Your task to perform on an android device: see creations saved in the google photos Image 0: 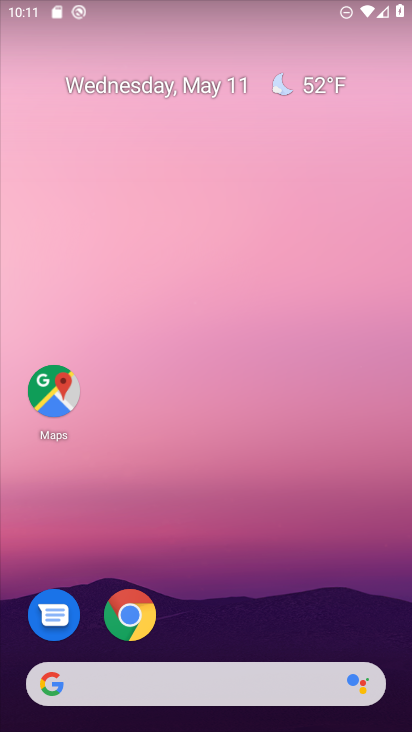
Step 0: drag from (299, 620) to (184, 123)
Your task to perform on an android device: see creations saved in the google photos Image 1: 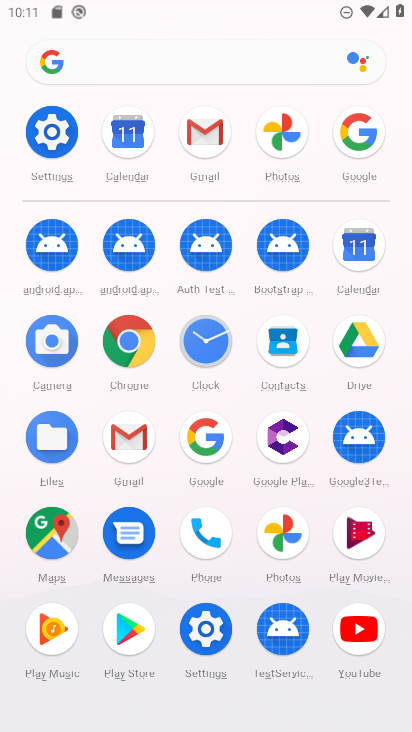
Step 1: click (281, 134)
Your task to perform on an android device: see creations saved in the google photos Image 2: 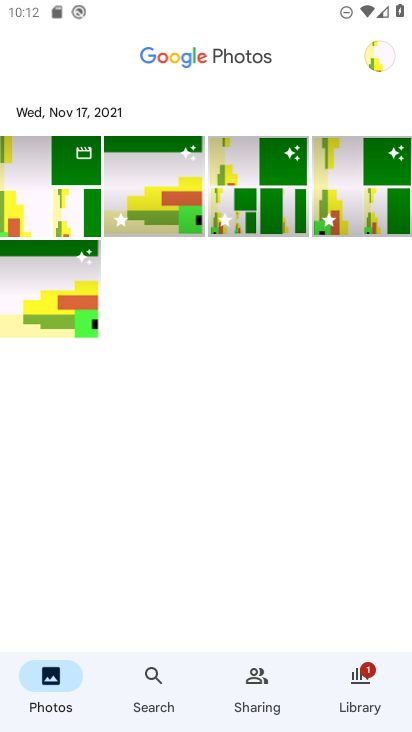
Step 2: click (253, 685)
Your task to perform on an android device: see creations saved in the google photos Image 3: 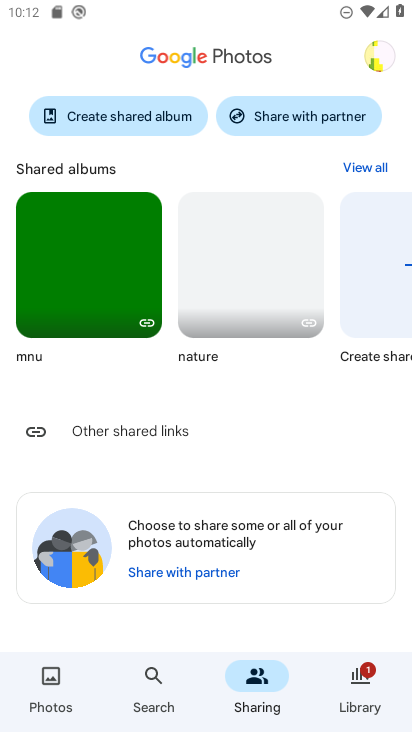
Step 3: drag from (192, 431) to (242, 260)
Your task to perform on an android device: see creations saved in the google photos Image 4: 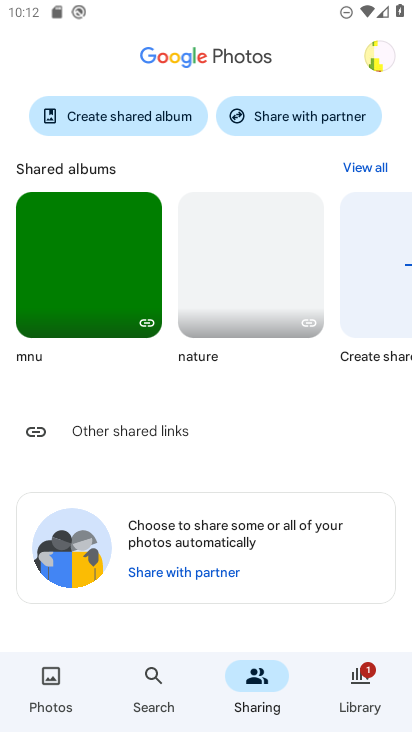
Step 4: click (155, 697)
Your task to perform on an android device: see creations saved in the google photos Image 5: 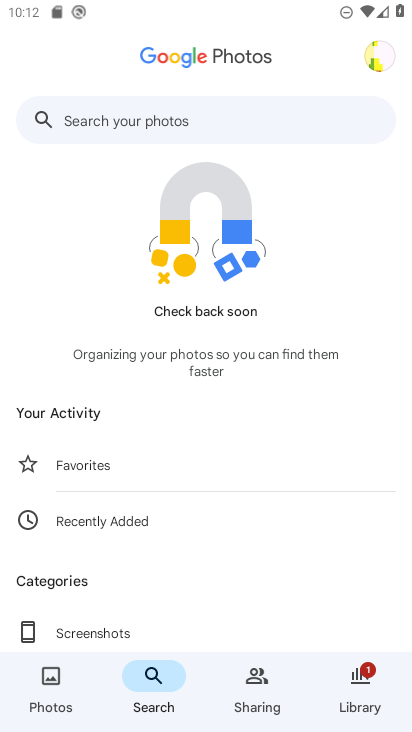
Step 5: drag from (152, 523) to (220, 378)
Your task to perform on an android device: see creations saved in the google photos Image 6: 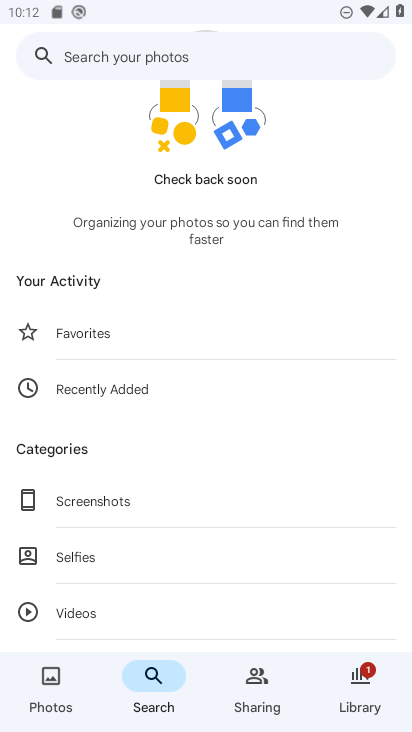
Step 6: drag from (168, 568) to (258, 294)
Your task to perform on an android device: see creations saved in the google photos Image 7: 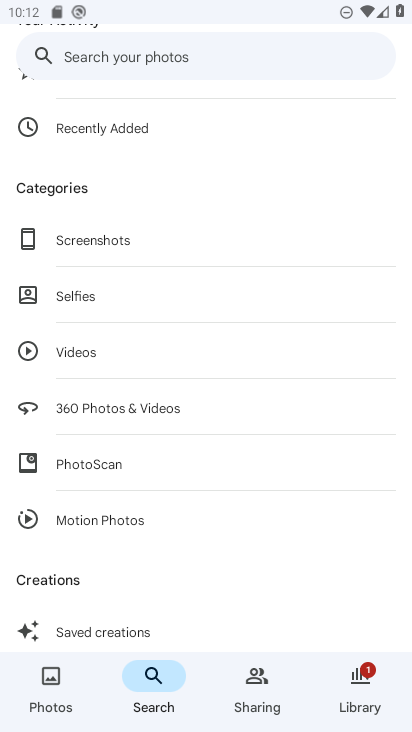
Step 7: drag from (175, 525) to (235, 385)
Your task to perform on an android device: see creations saved in the google photos Image 8: 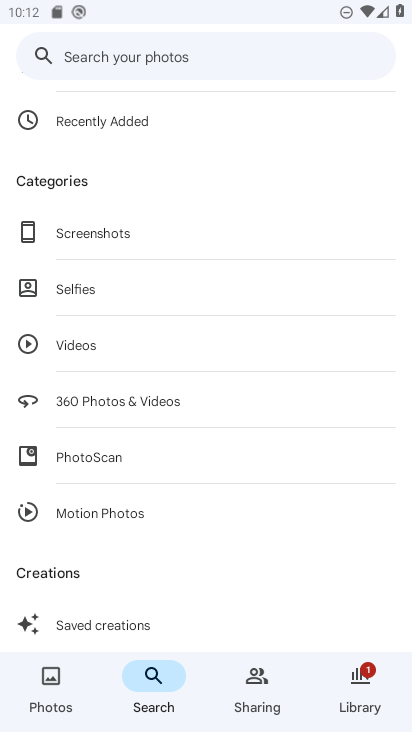
Step 8: click (130, 623)
Your task to perform on an android device: see creations saved in the google photos Image 9: 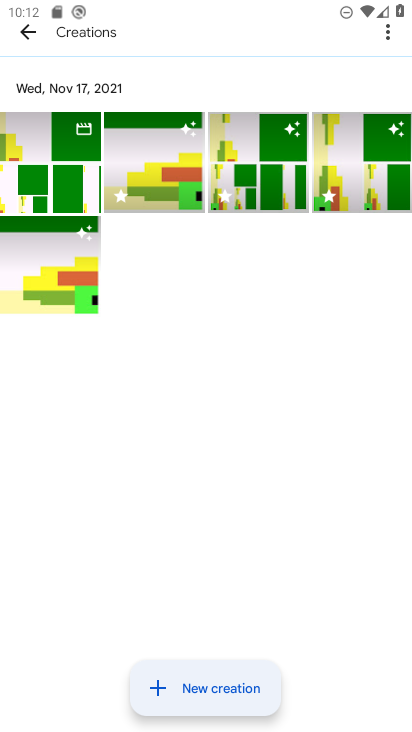
Step 9: click (188, 696)
Your task to perform on an android device: see creations saved in the google photos Image 10: 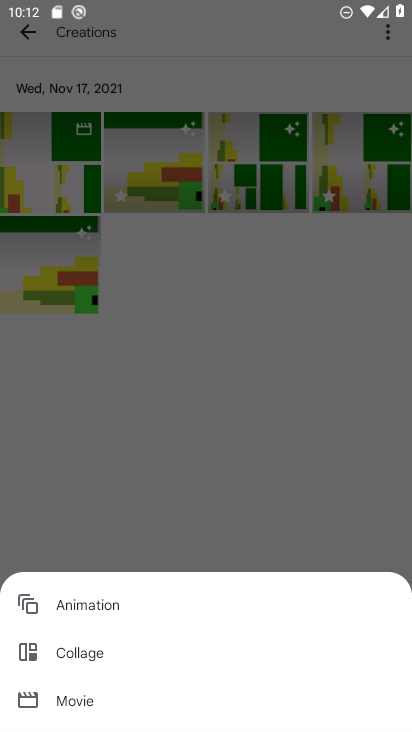
Step 10: drag from (86, 705) to (123, 559)
Your task to perform on an android device: see creations saved in the google photos Image 11: 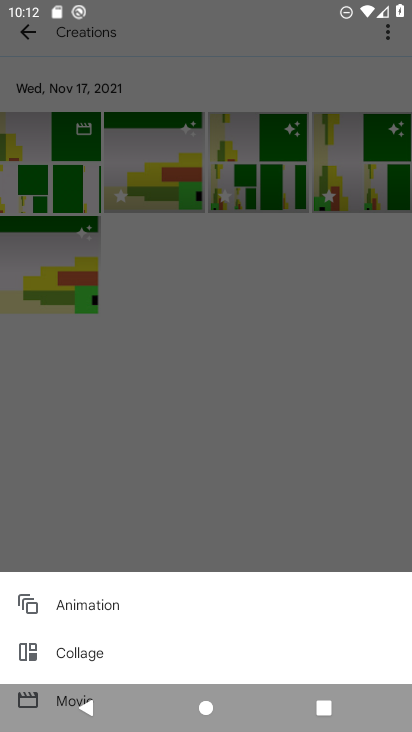
Step 11: click (78, 610)
Your task to perform on an android device: see creations saved in the google photos Image 12: 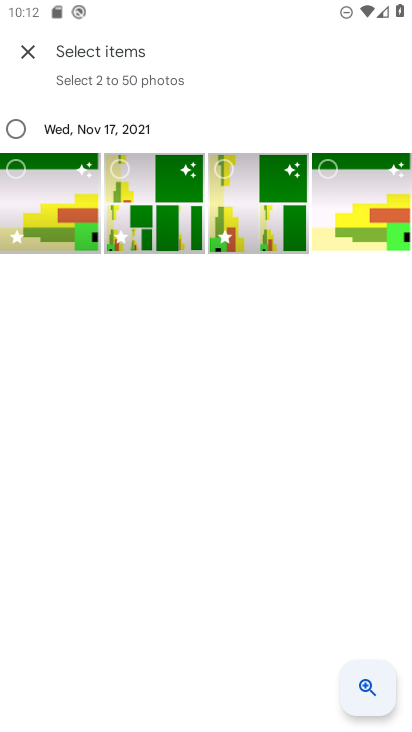
Step 12: click (9, 135)
Your task to perform on an android device: see creations saved in the google photos Image 13: 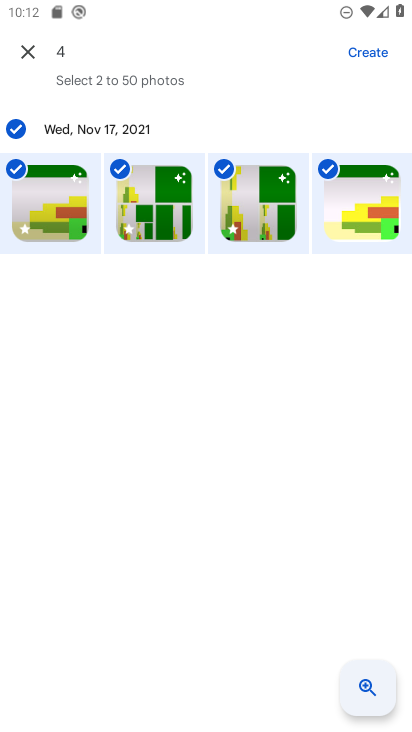
Step 13: click (367, 53)
Your task to perform on an android device: see creations saved in the google photos Image 14: 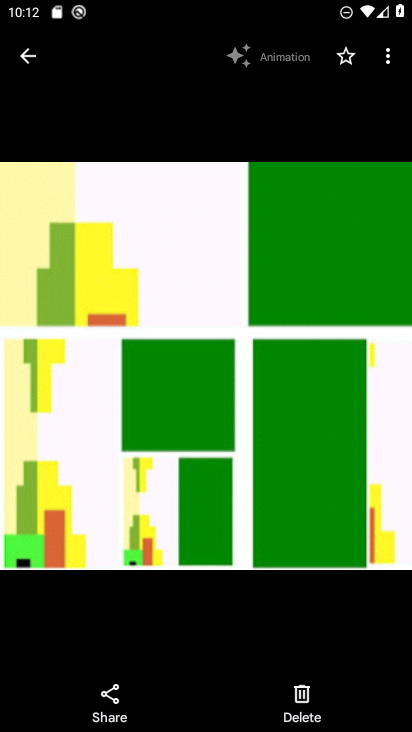
Step 14: click (26, 66)
Your task to perform on an android device: see creations saved in the google photos Image 15: 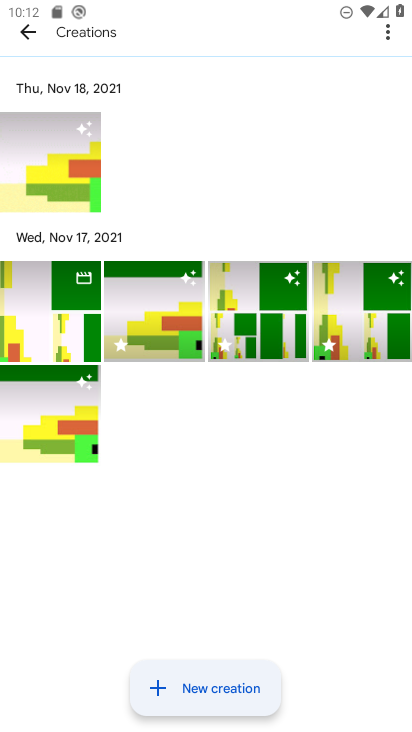
Step 15: click (34, 39)
Your task to perform on an android device: see creations saved in the google photos Image 16: 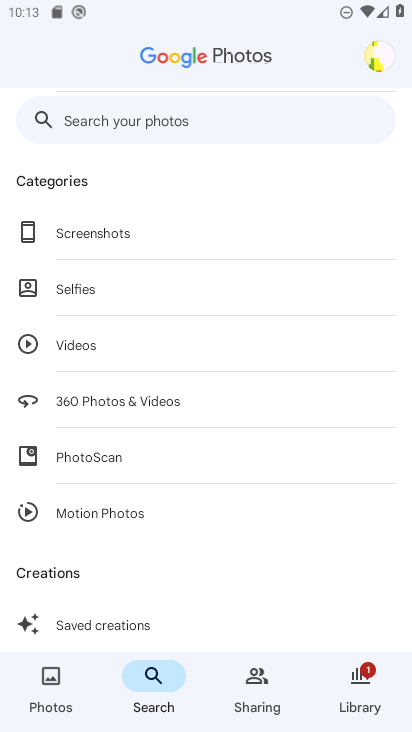
Step 16: task complete